Your task to perform on an android device: turn notification dots off Image 0: 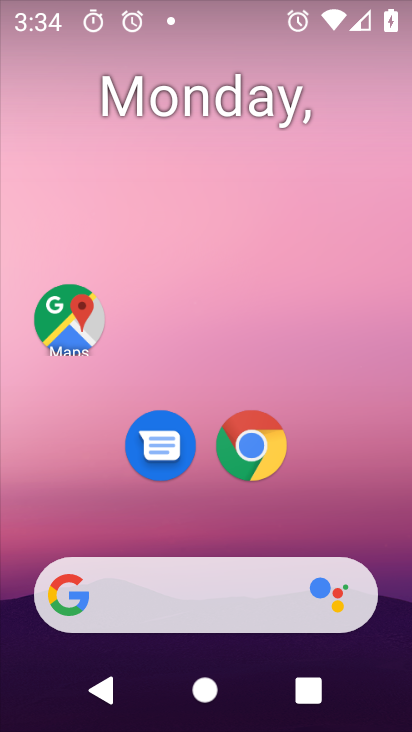
Step 0: drag from (182, 580) to (234, 308)
Your task to perform on an android device: turn notification dots off Image 1: 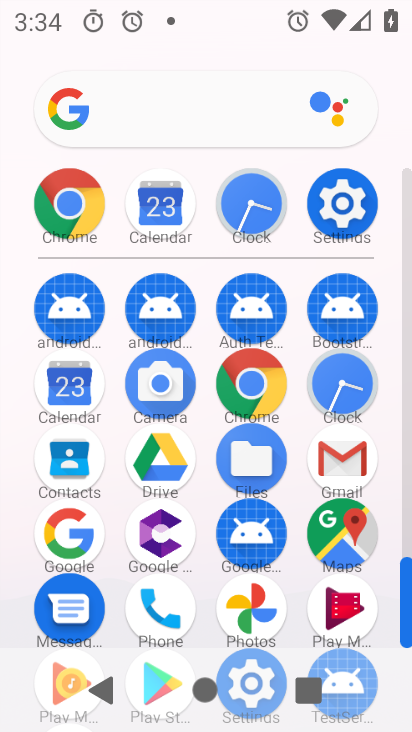
Step 1: click (344, 209)
Your task to perform on an android device: turn notification dots off Image 2: 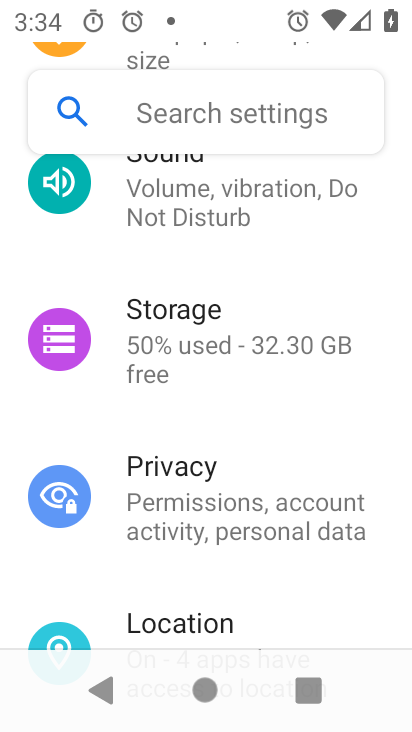
Step 2: drag from (207, 442) to (248, 43)
Your task to perform on an android device: turn notification dots off Image 3: 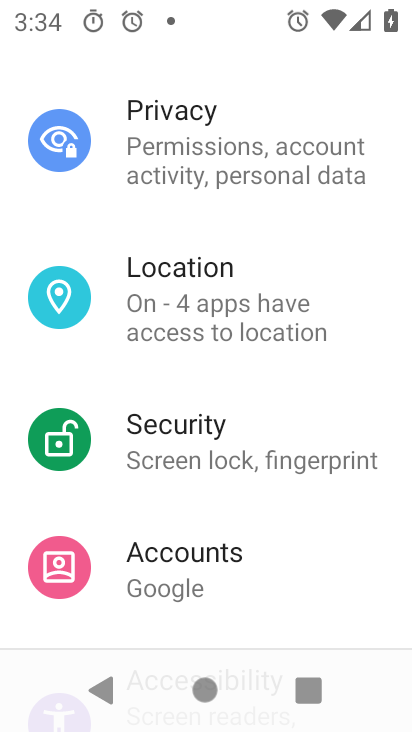
Step 3: drag from (207, 222) to (260, 723)
Your task to perform on an android device: turn notification dots off Image 4: 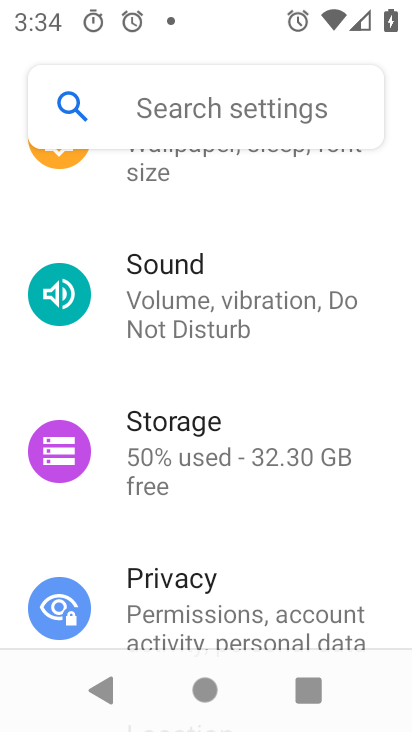
Step 4: drag from (254, 241) to (204, 601)
Your task to perform on an android device: turn notification dots off Image 5: 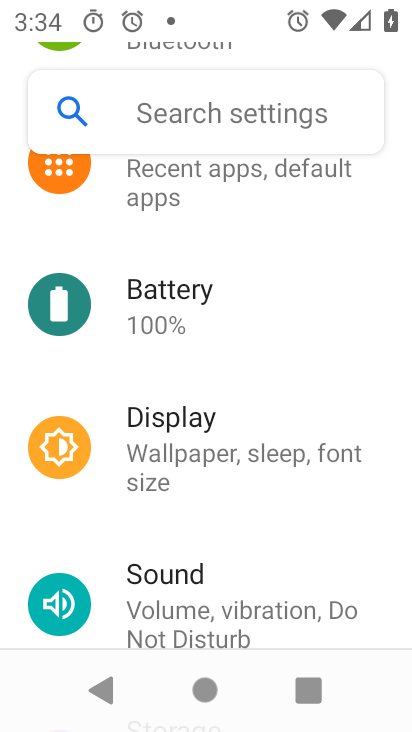
Step 5: drag from (212, 171) to (203, 489)
Your task to perform on an android device: turn notification dots off Image 6: 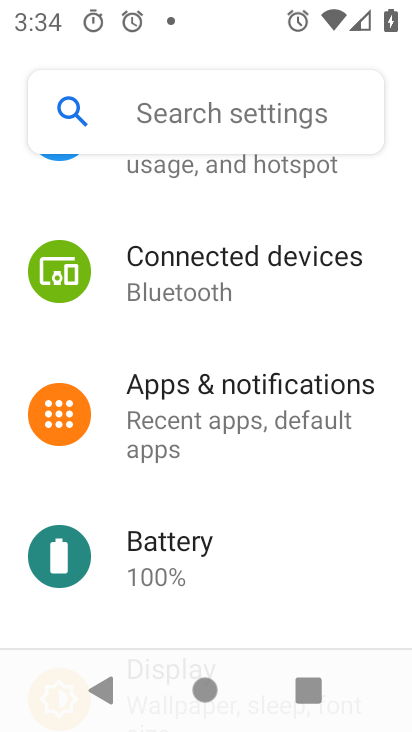
Step 6: click (229, 394)
Your task to perform on an android device: turn notification dots off Image 7: 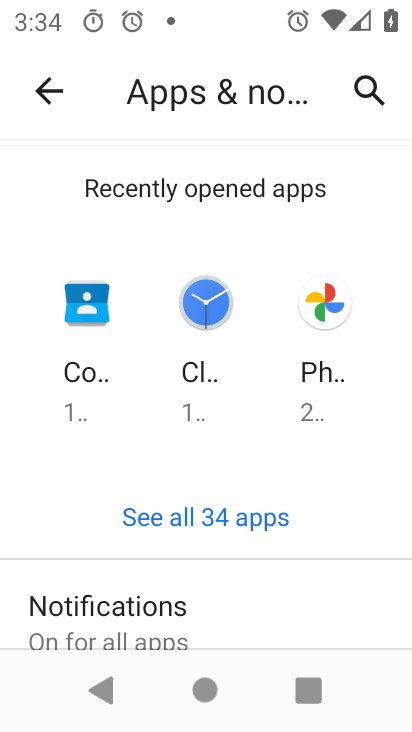
Step 7: click (49, 593)
Your task to perform on an android device: turn notification dots off Image 8: 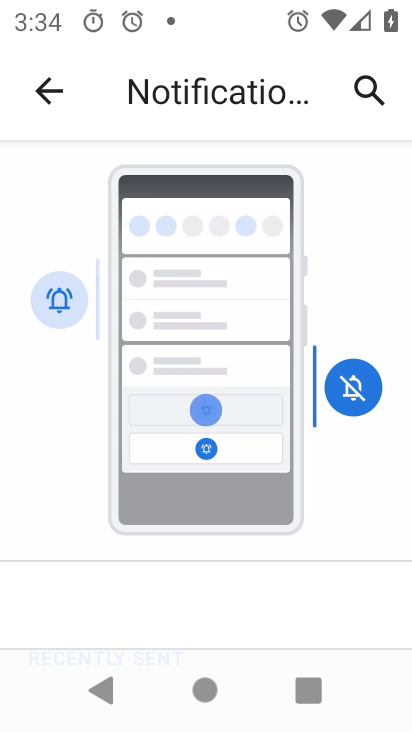
Step 8: drag from (76, 611) to (98, 85)
Your task to perform on an android device: turn notification dots off Image 9: 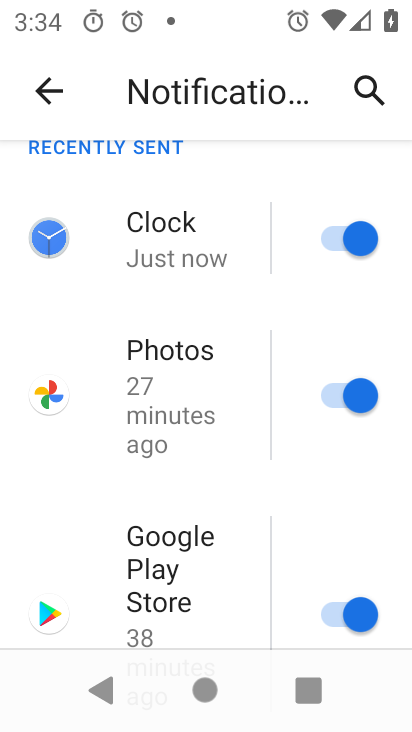
Step 9: drag from (154, 481) to (109, 6)
Your task to perform on an android device: turn notification dots off Image 10: 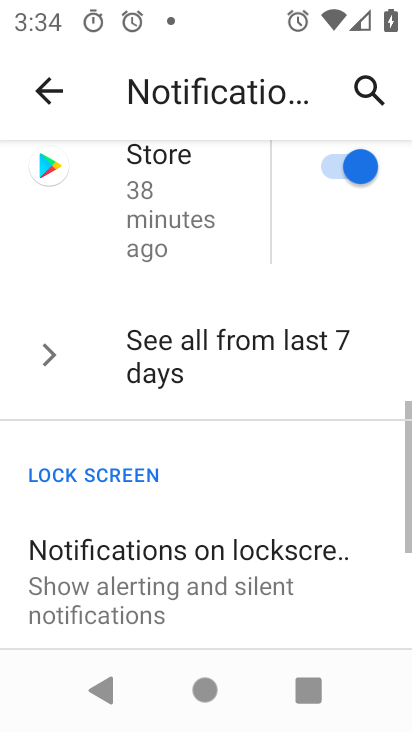
Step 10: drag from (127, 590) to (102, 170)
Your task to perform on an android device: turn notification dots off Image 11: 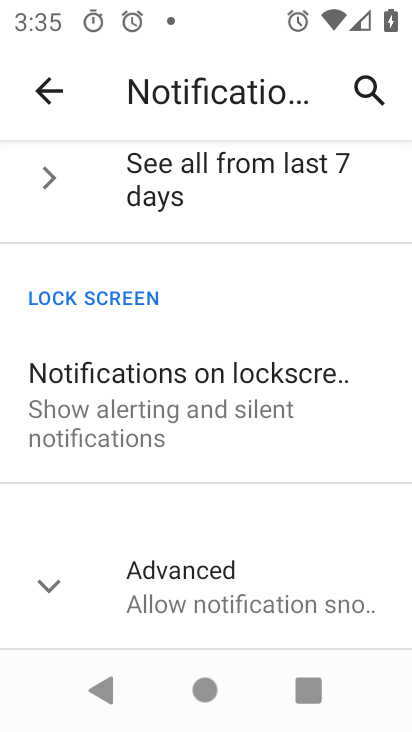
Step 11: click (167, 654)
Your task to perform on an android device: turn notification dots off Image 12: 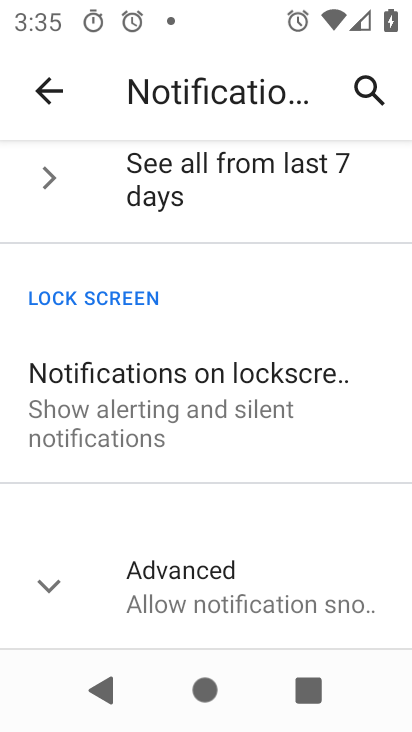
Step 12: click (167, 603)
Your task to perform on an android device: turn notification dots off Image 13: 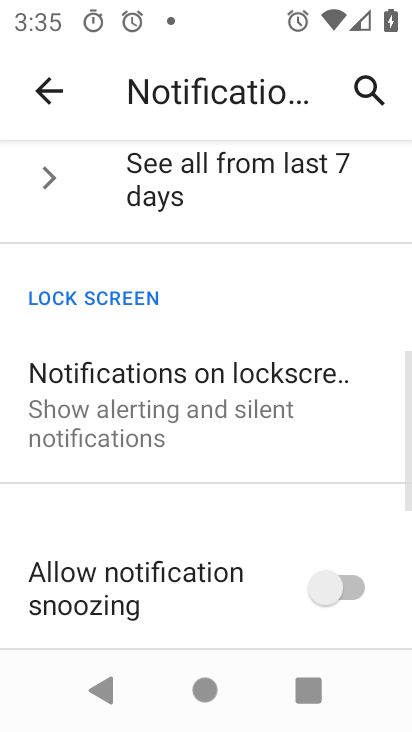
Step 13: task complete